Your task to perform on an android device: turn on airplane mode Image 0: 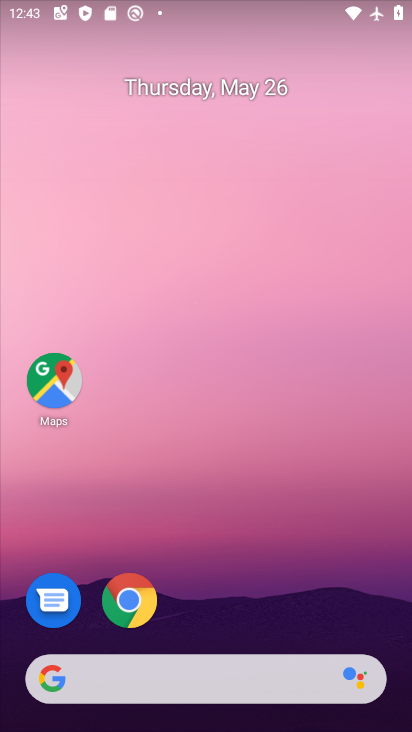
Step 0: drag from (279, 573) to (275, 227)
Your task to perform on an android device: turn on airplane mode Image 1: 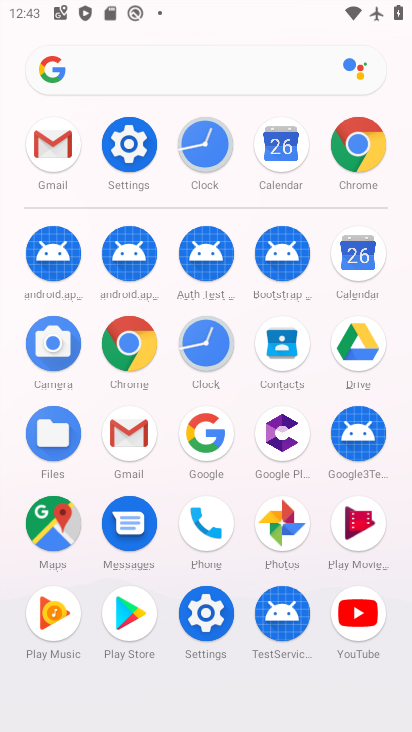
Step 1: click (130, 151)
Your task to perform on an android device: turn on airplane mode Image 2: 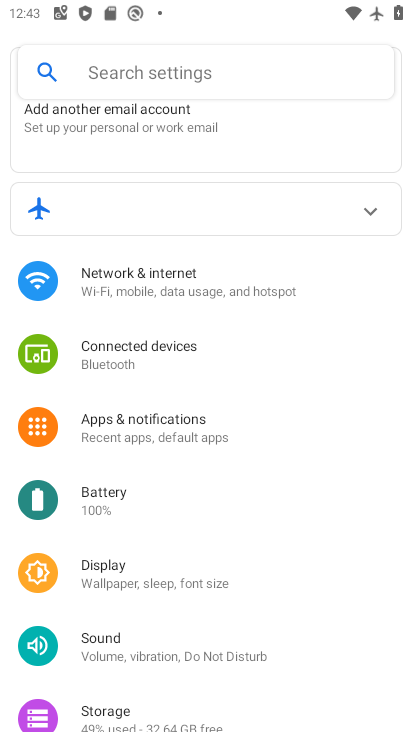
Step 2: click (162, 274)
Your task to perform on an android device: turn on airplane mode Image 3: 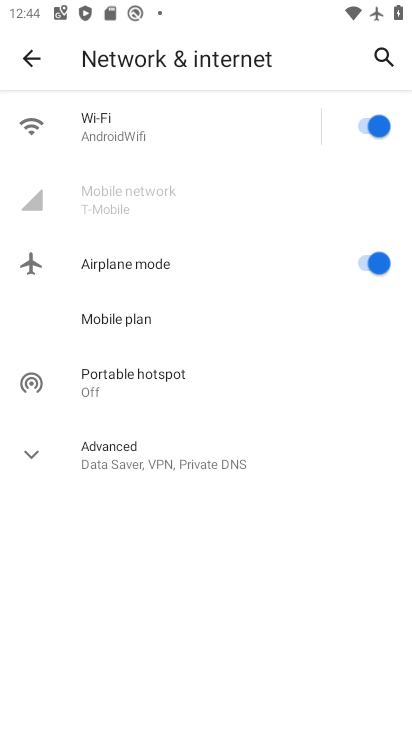
Step 3: task complete